Your task to perform on an android device: empty trash in the gmail app Image 0: 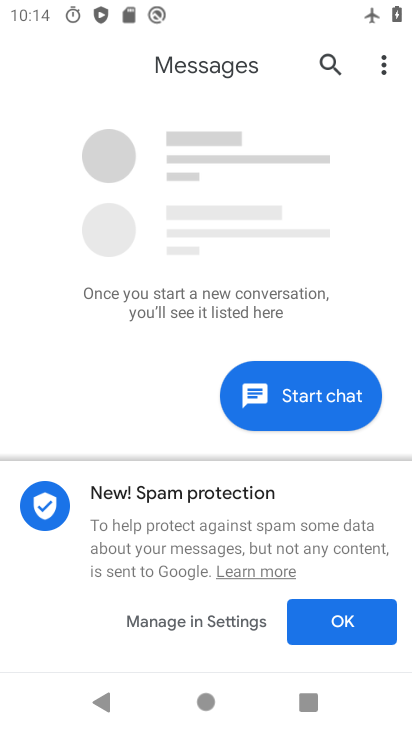
Step 0: press home button
Your task to perform on an android device: empty trash in the gmail app Image 1: 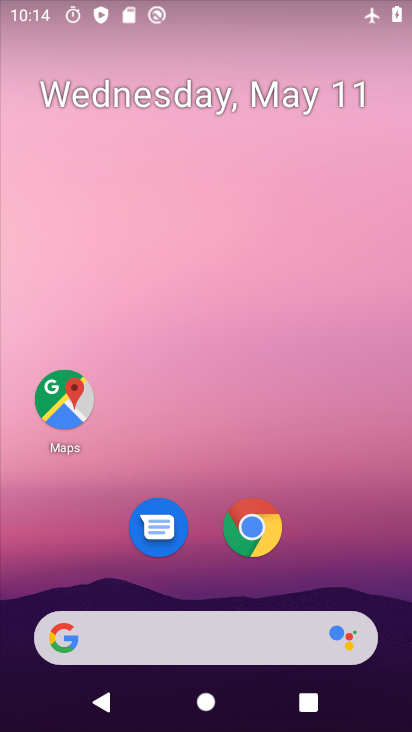
Step 1: drag from (333, 607) to (341, 188)
Your task to perform on an android device: empty trash in the gmail app Image 2: 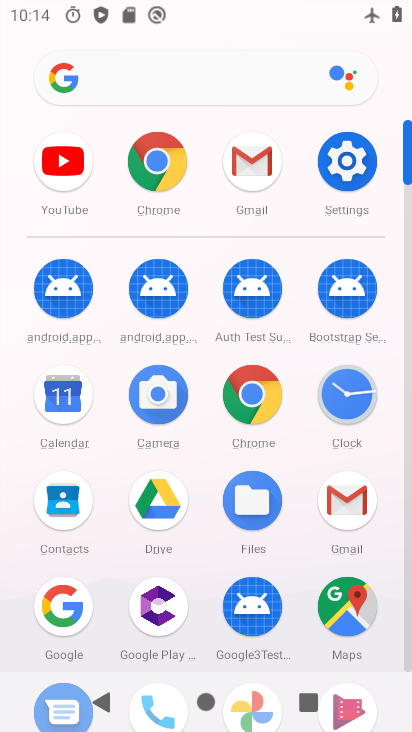
Step 2: click (332, 510)
Your task to perform on an android device: empty trash in the gmail app Image 3: 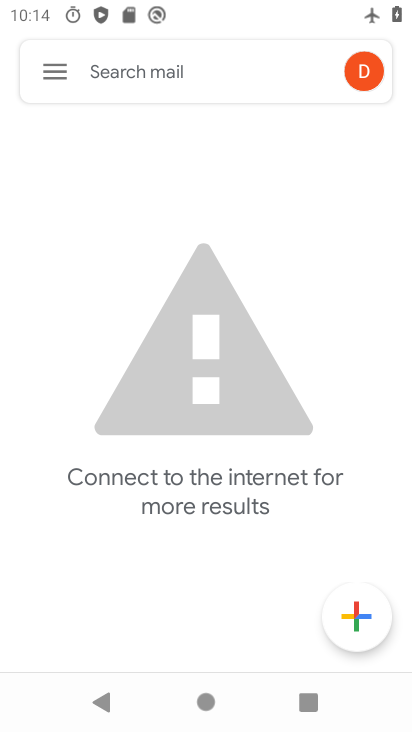
Step 3: click (50, 79)
Your task to perform on an android device: empty trash in the gmail app Image 4: 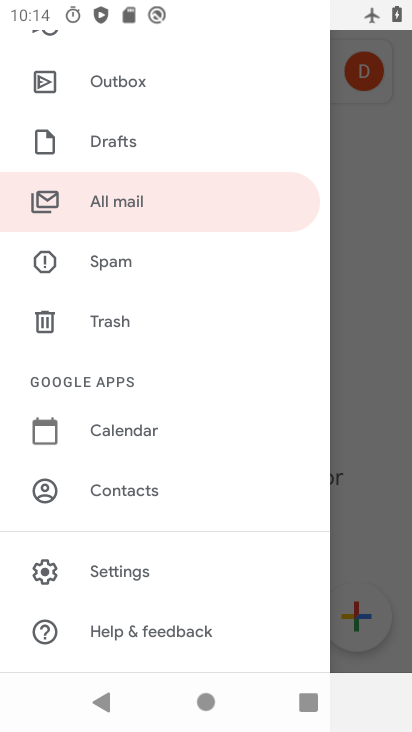
Step 4: click (125, 319)
Your task to perform on an android device: empty trash in the gmail app Image 5: 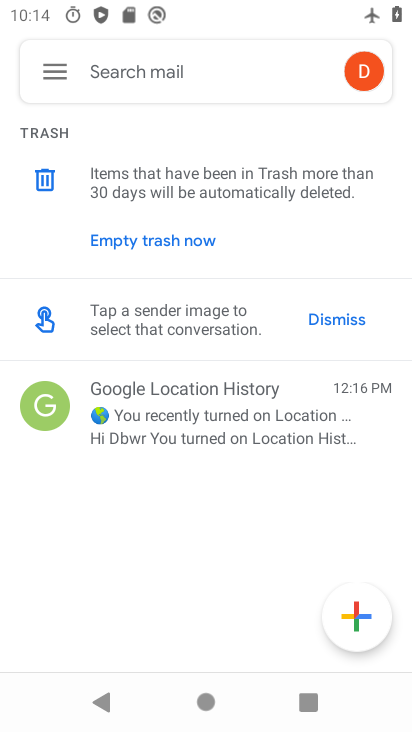
Step 5: click (57, 67)
Your task to perform on an android device: empty trash in the gmail app Image 6: 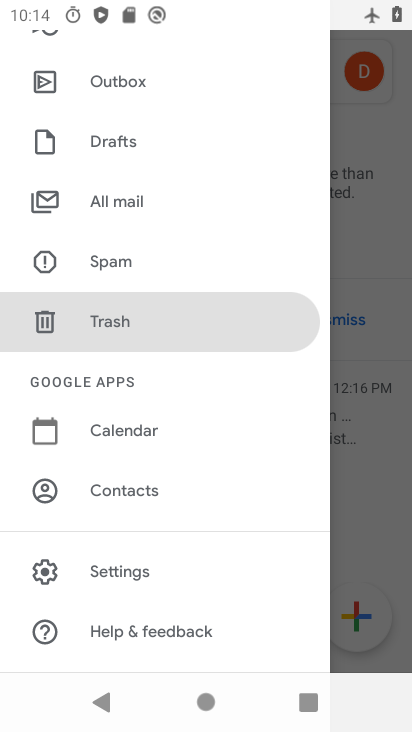
Step 6: click (386, 142)
Your task to perform on an android device: empty trash in the gmail app Image 7: 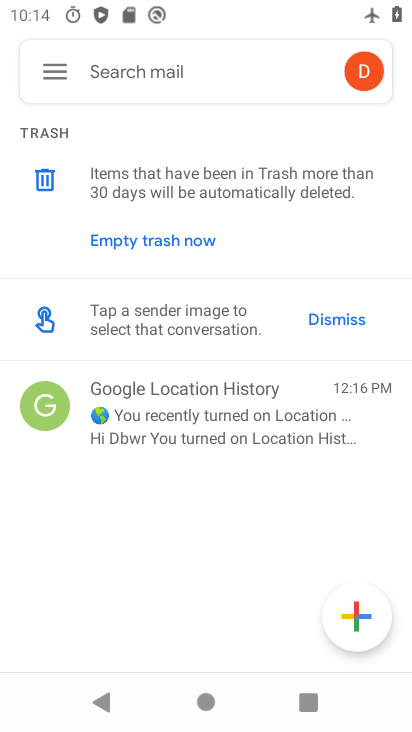
Step 7: click (128, 249)
Your task to perform on an android device: empty trash in the gmail app Image 8: 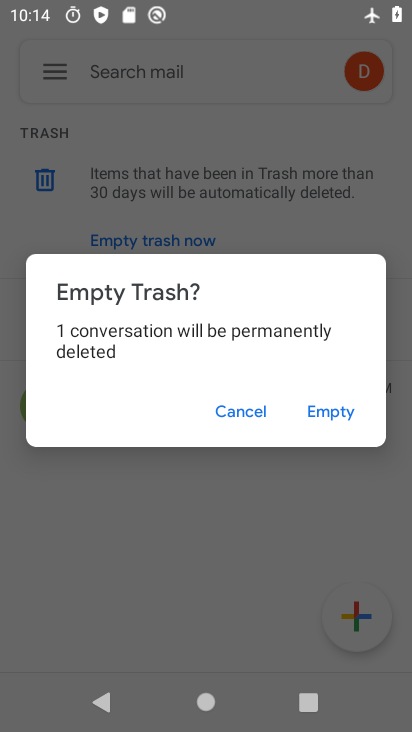
Step 8: click (304, 413)
Your task to perform on an android device: empty trash in the gmail app Image 9: 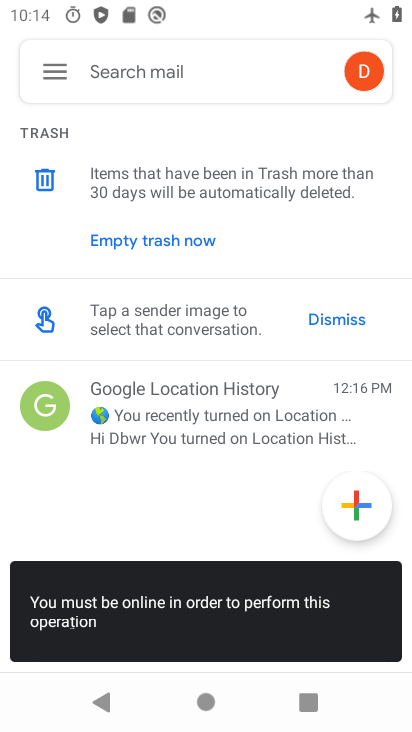
Step 9: task complete